Your task to perform on an android device: Add razer thresher to the cart on walmart Image 0: 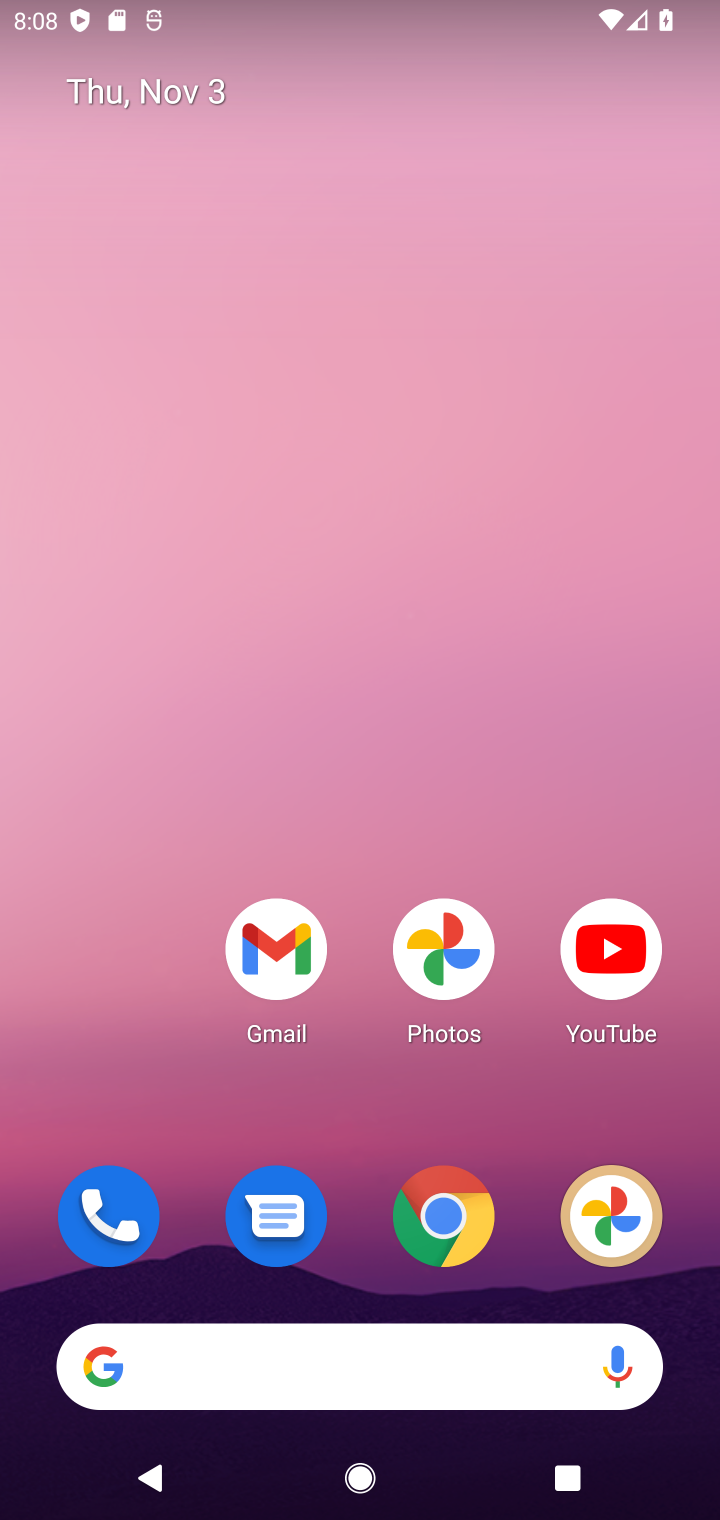
Step 0: click (458, 1223)
Your task to perform on an android device: Add razer thresher to the cart on walmart Image 1: 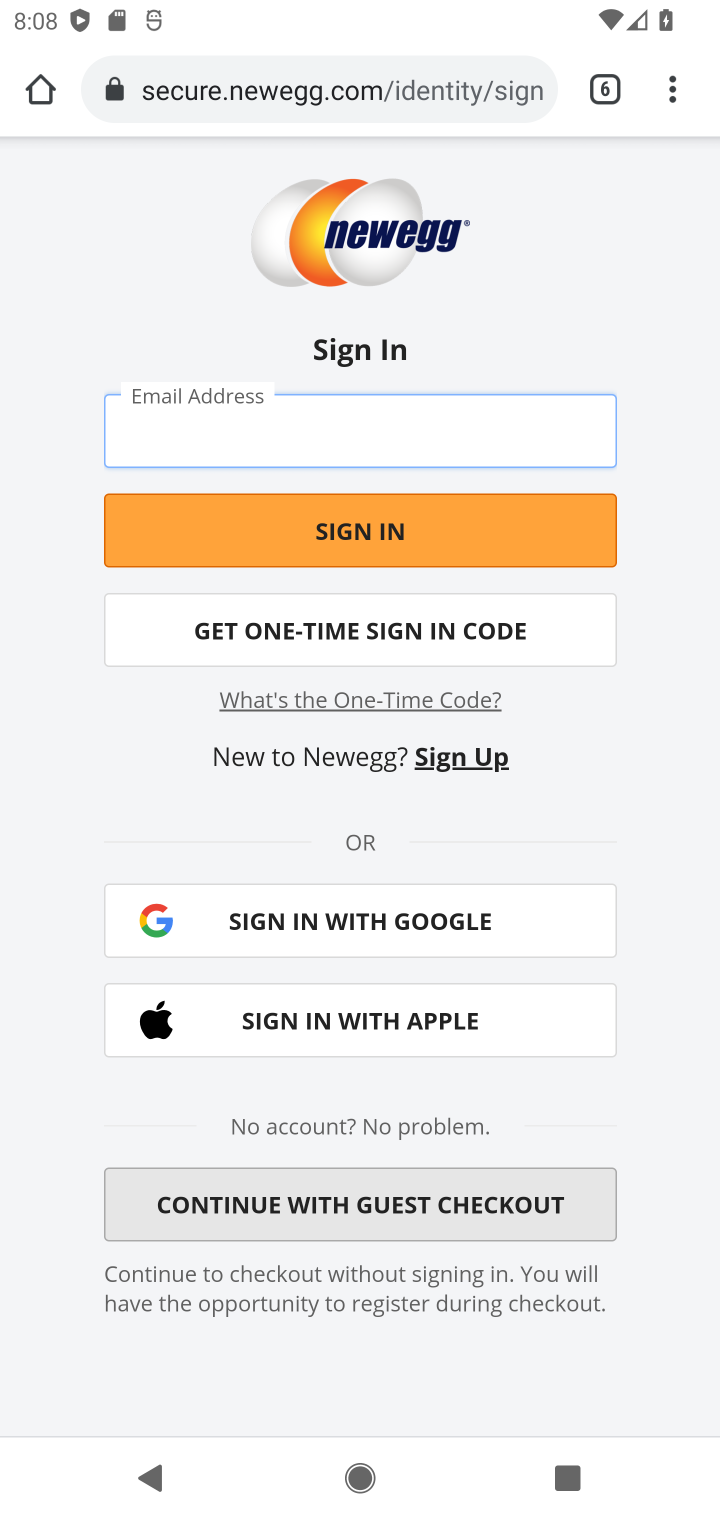
Step 1: click (606, 80)
Your task to perform on an android device: Add razer thresher to the cart on walmart Image 2: 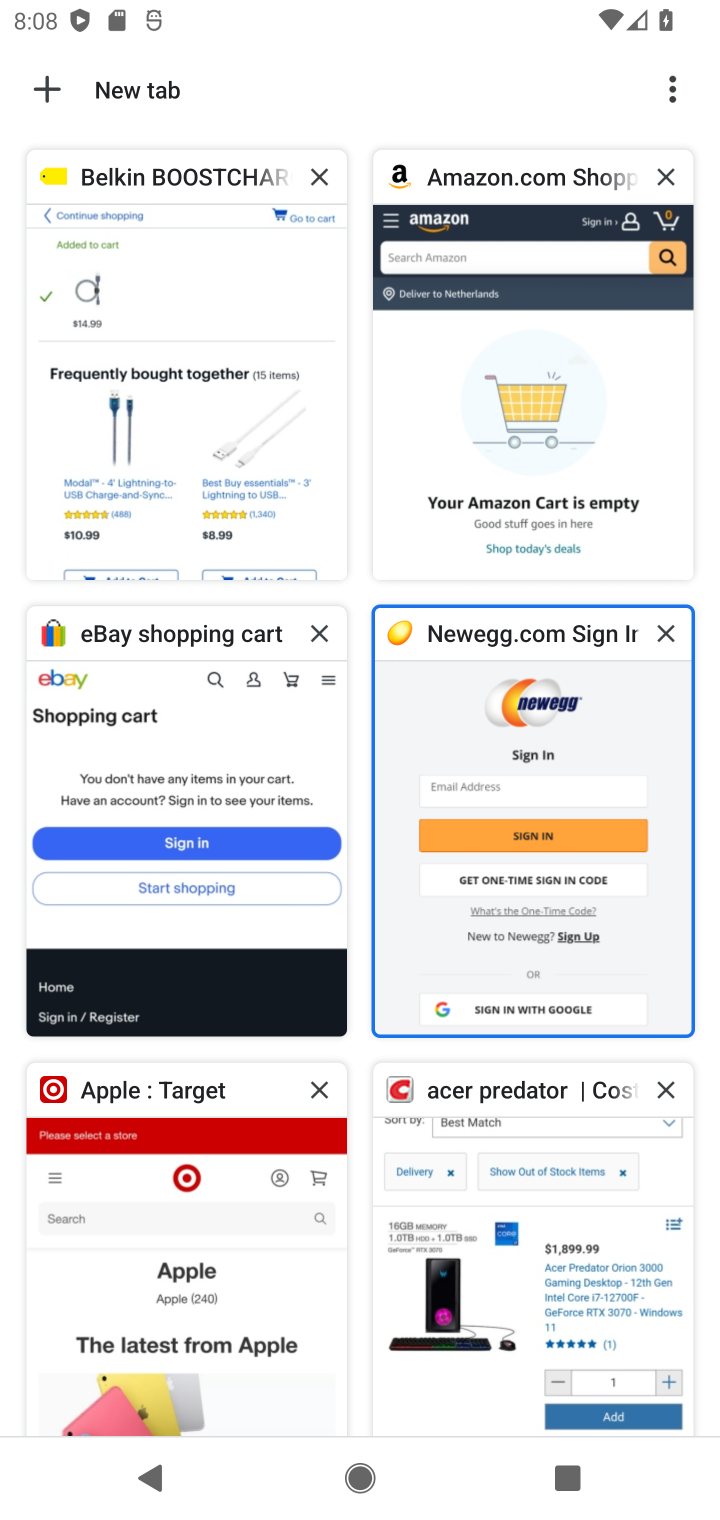
Step 2: click (115, 91)
Your task to perform on an android device: Add razer thresher to the cart on walmart Image 3: 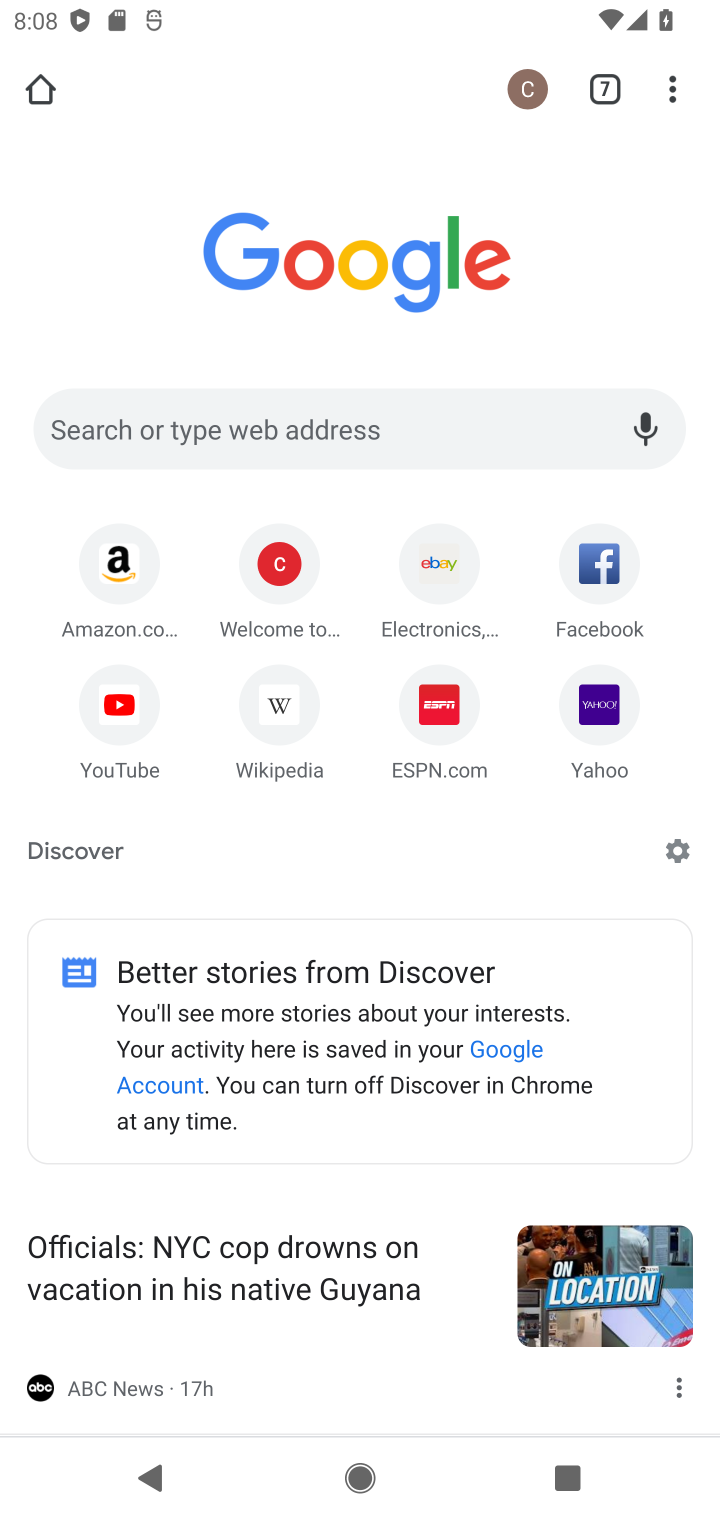
Step 3: click (301, 410)
Your task to perform on an android device: Add razer thresher to the cart on walmart Image 4: 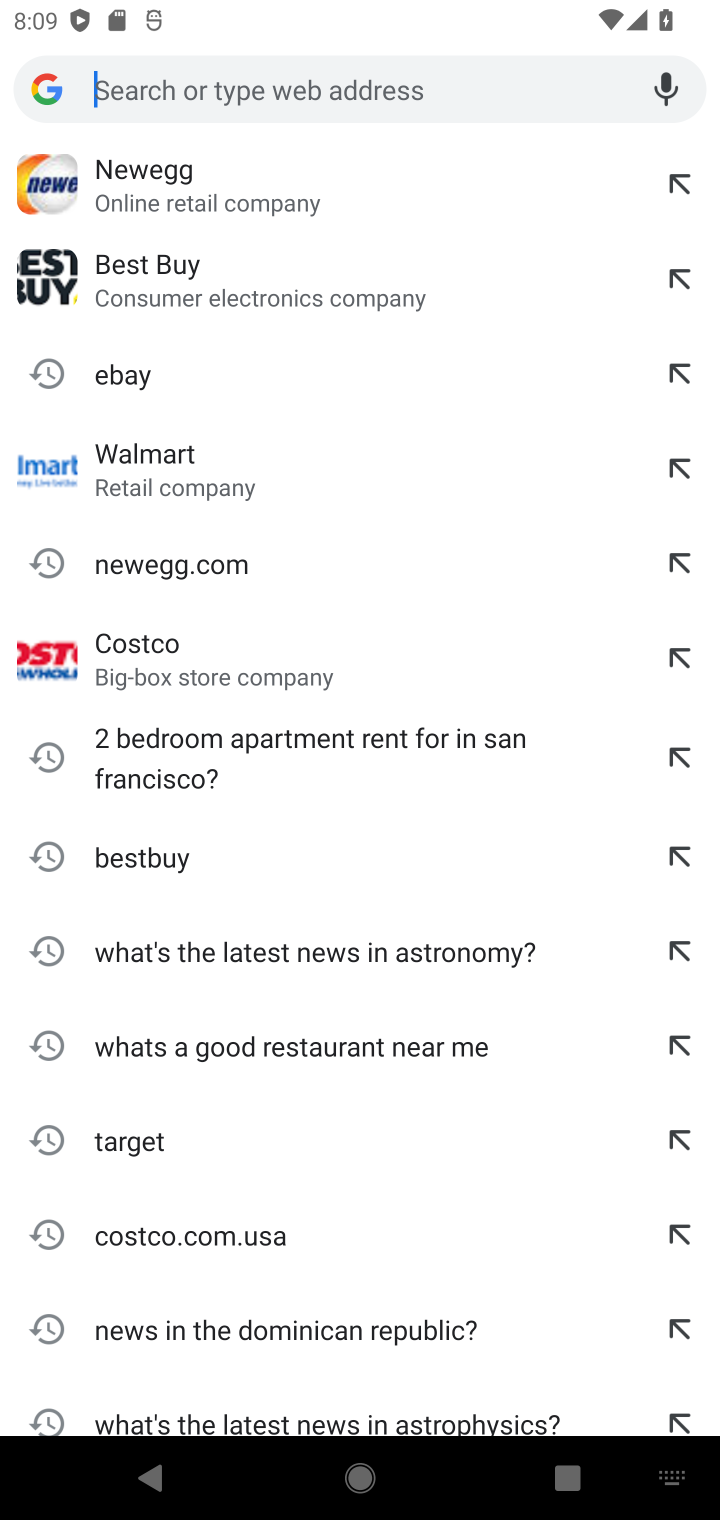
Step 4: click (204, 474)
Your task to perform on an android device: Add razer thresher to the cart on walmart Image 5: 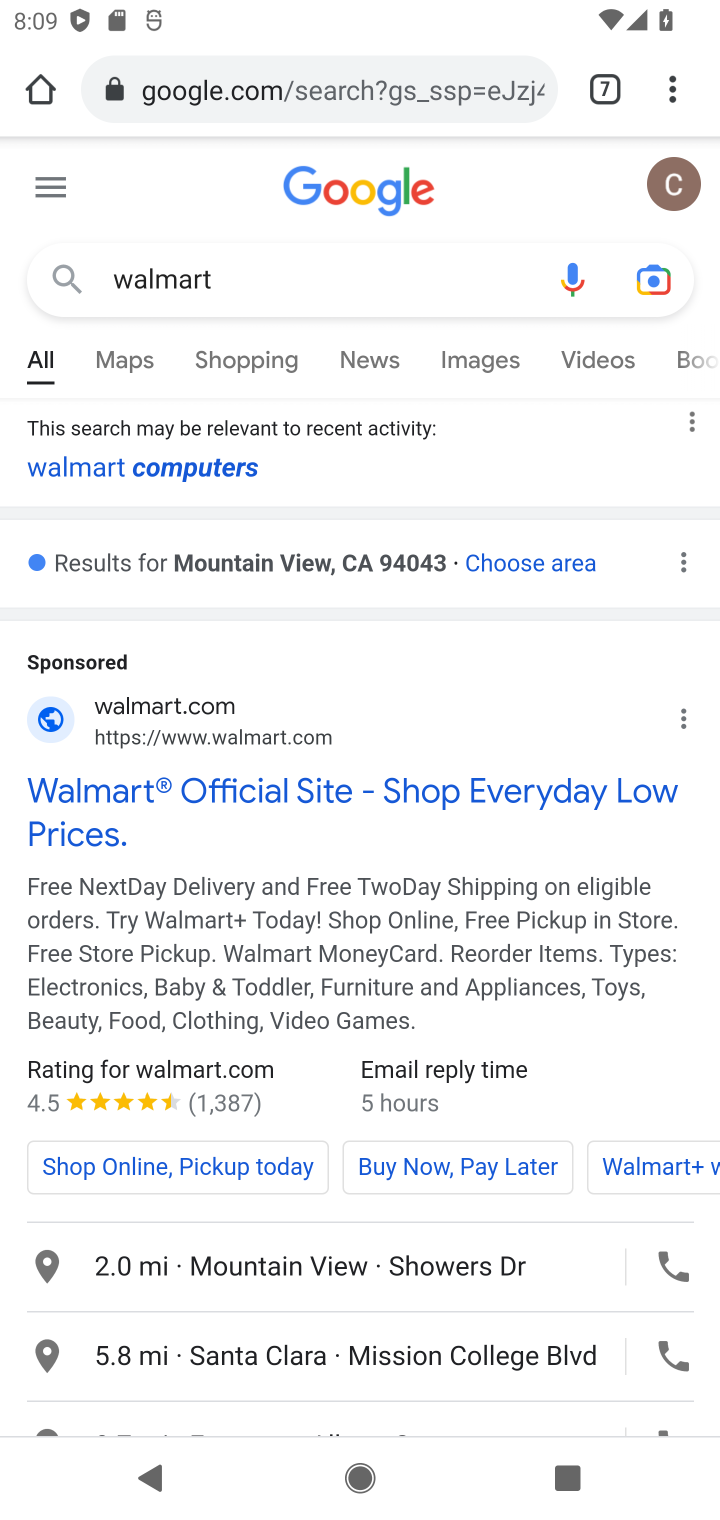
Step 5: click (107, 781)
Your task to perform on an android device: Add razer thresher to the cart on walmart Image 6: 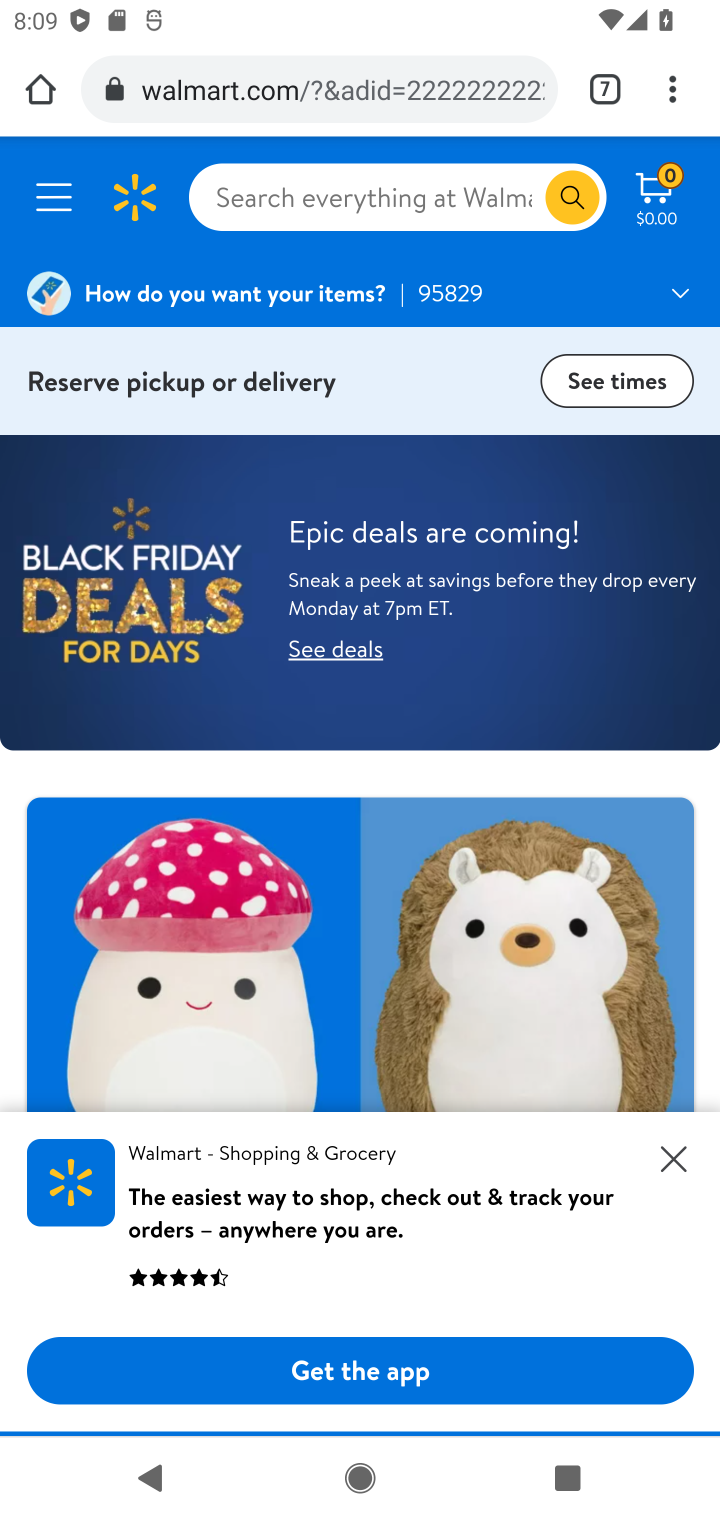
Step 6: click (308, 193)
Your task to perform on an android device: Add razer thresher to the cart on walmart Image 7: 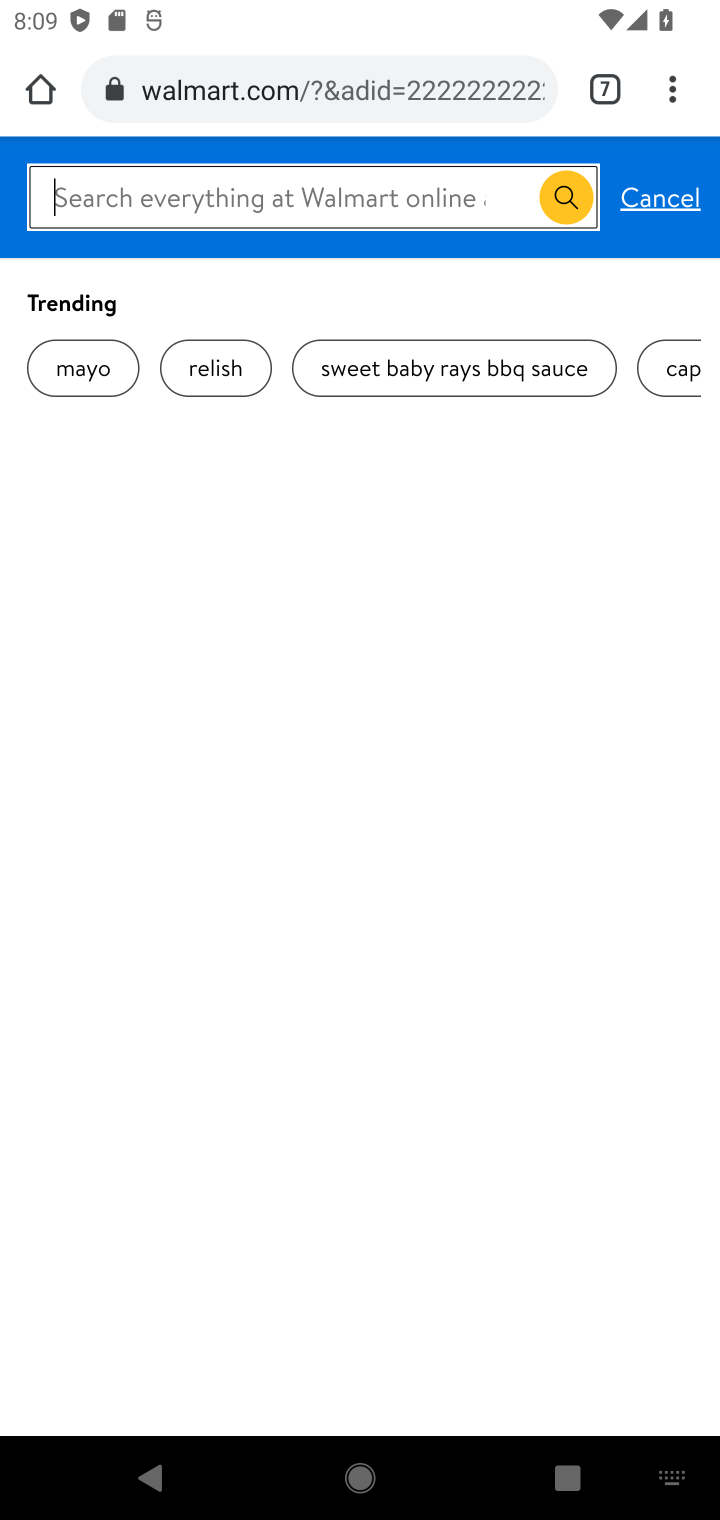
Step 7: type "razer thresher"
Your task to perform on an android device: Add razer thresher to the cart on walmart Image 8: 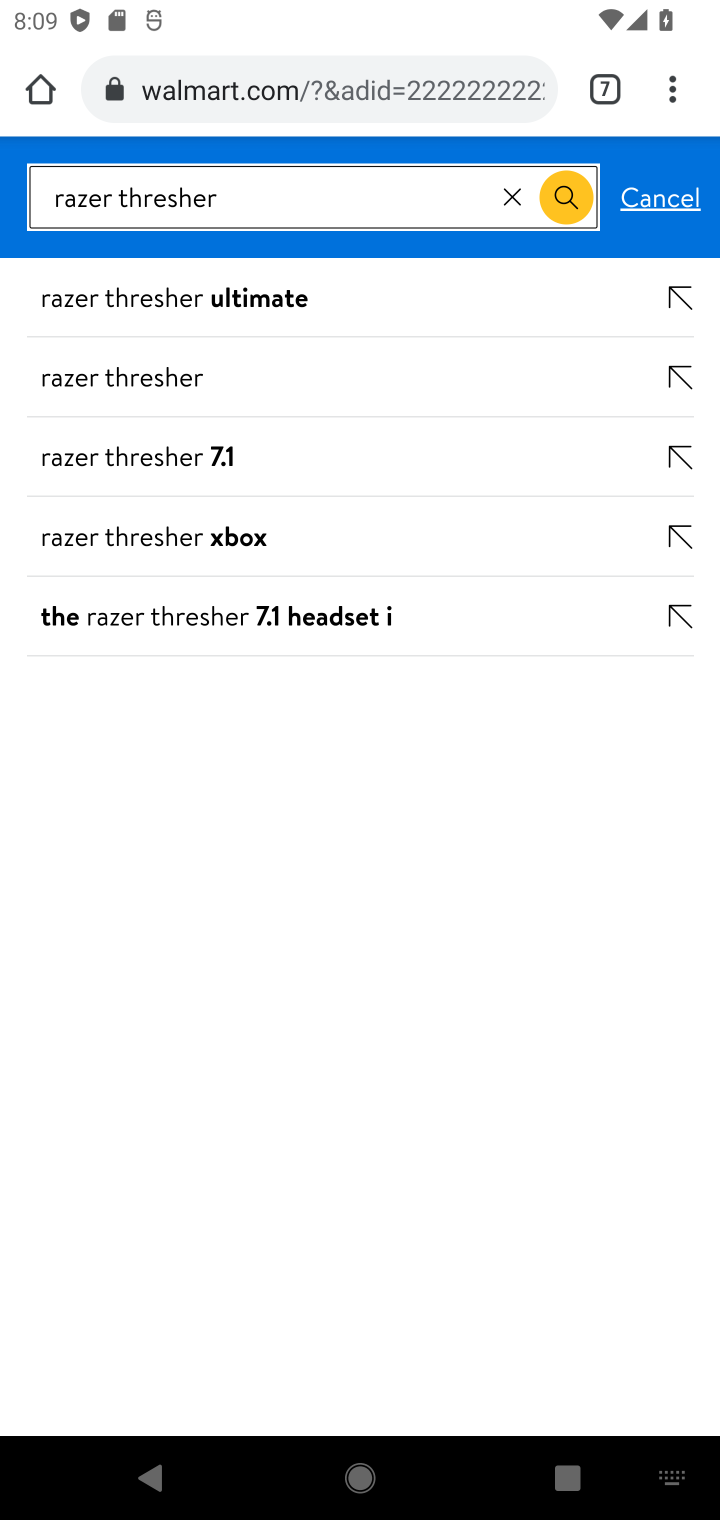
Step 8: press enter
Your task to perform on an android device: Add razer thresher to the cart on walmart Image 9: 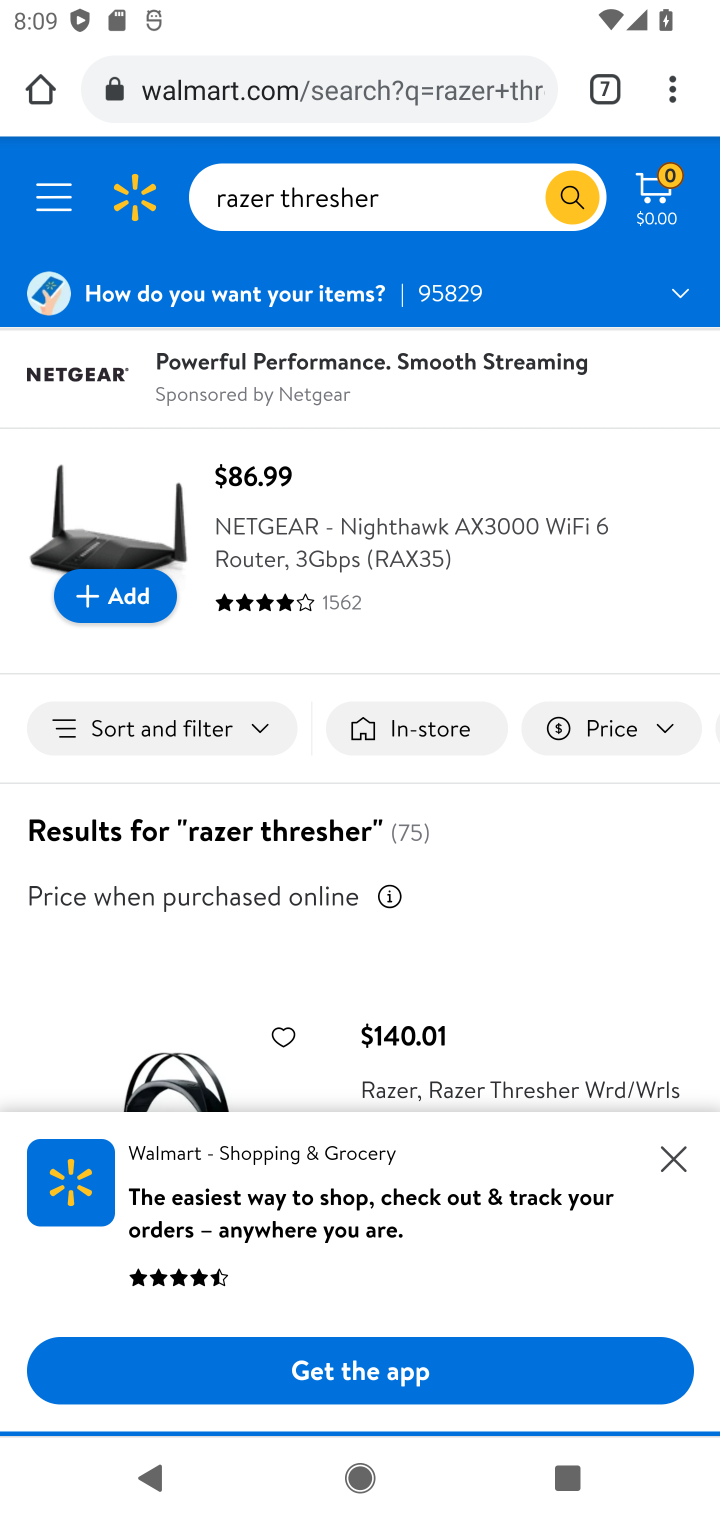
Step 9: drag from (309, 933) to (261, 638)
Your task to perform on an android device: Add razer thresher to the cart on walmart Image 10: 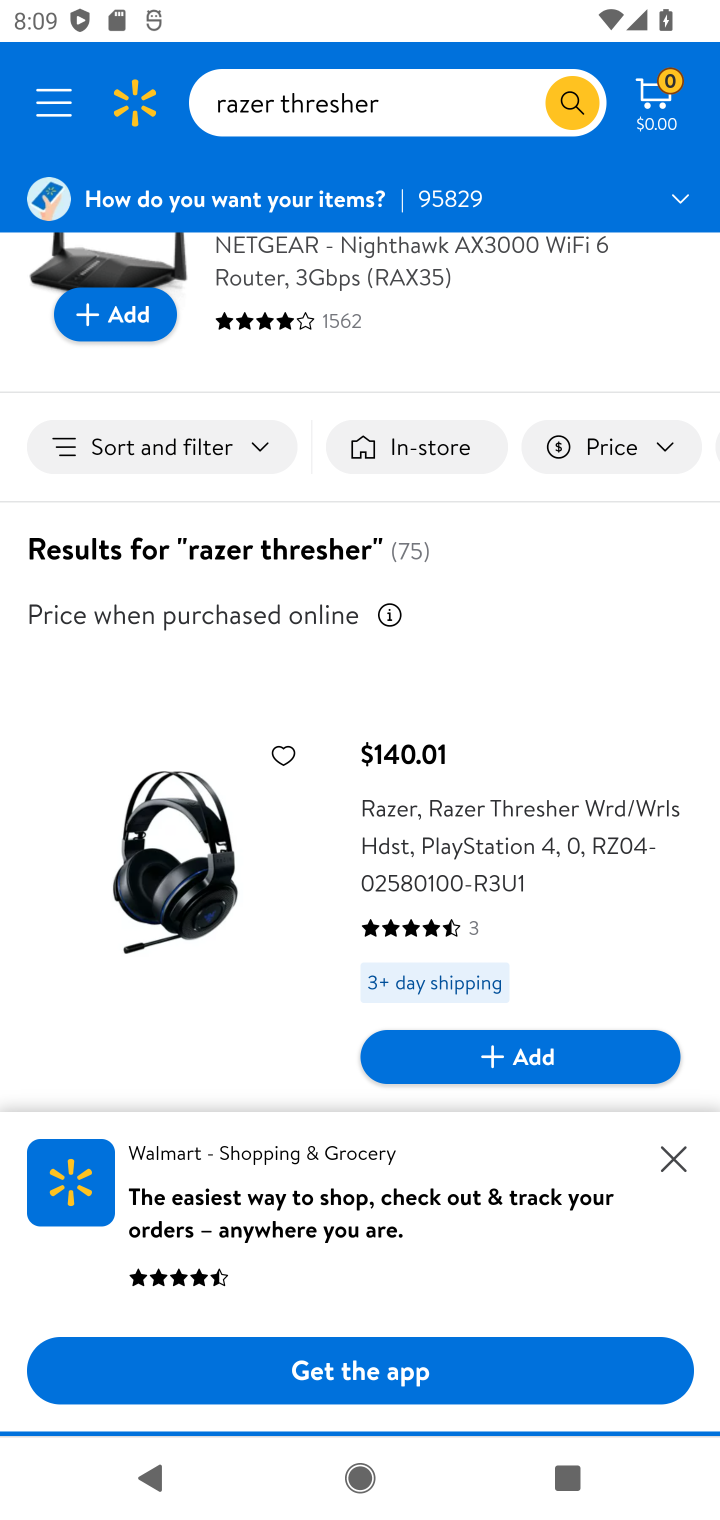
Step 10: click (456, 850)
Your task to perform on an android device: Add razer thresher to the cart on walmart Image 11: 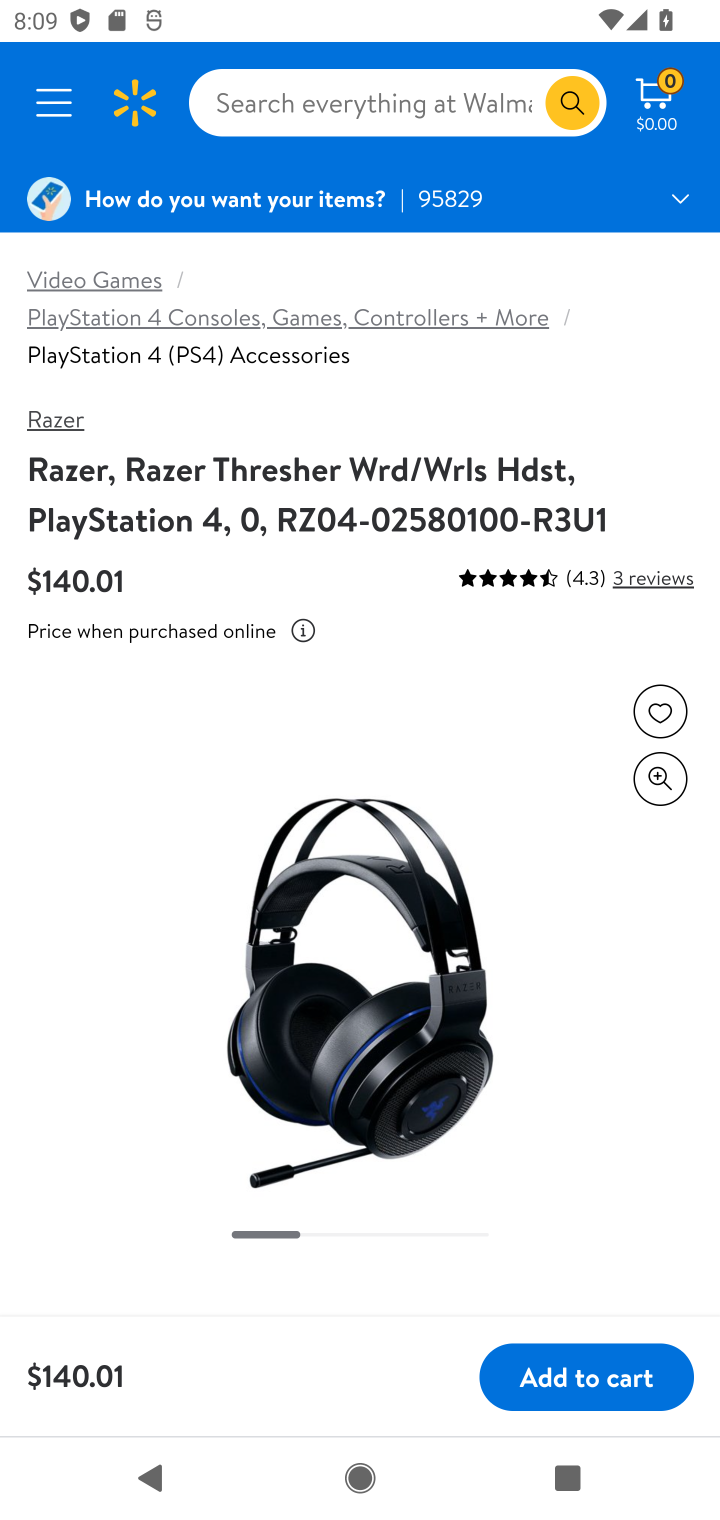
Step 11: click (550, 1361)
Your task to perform on an android device: Add razer thresher to the cart on walmart Image 12: 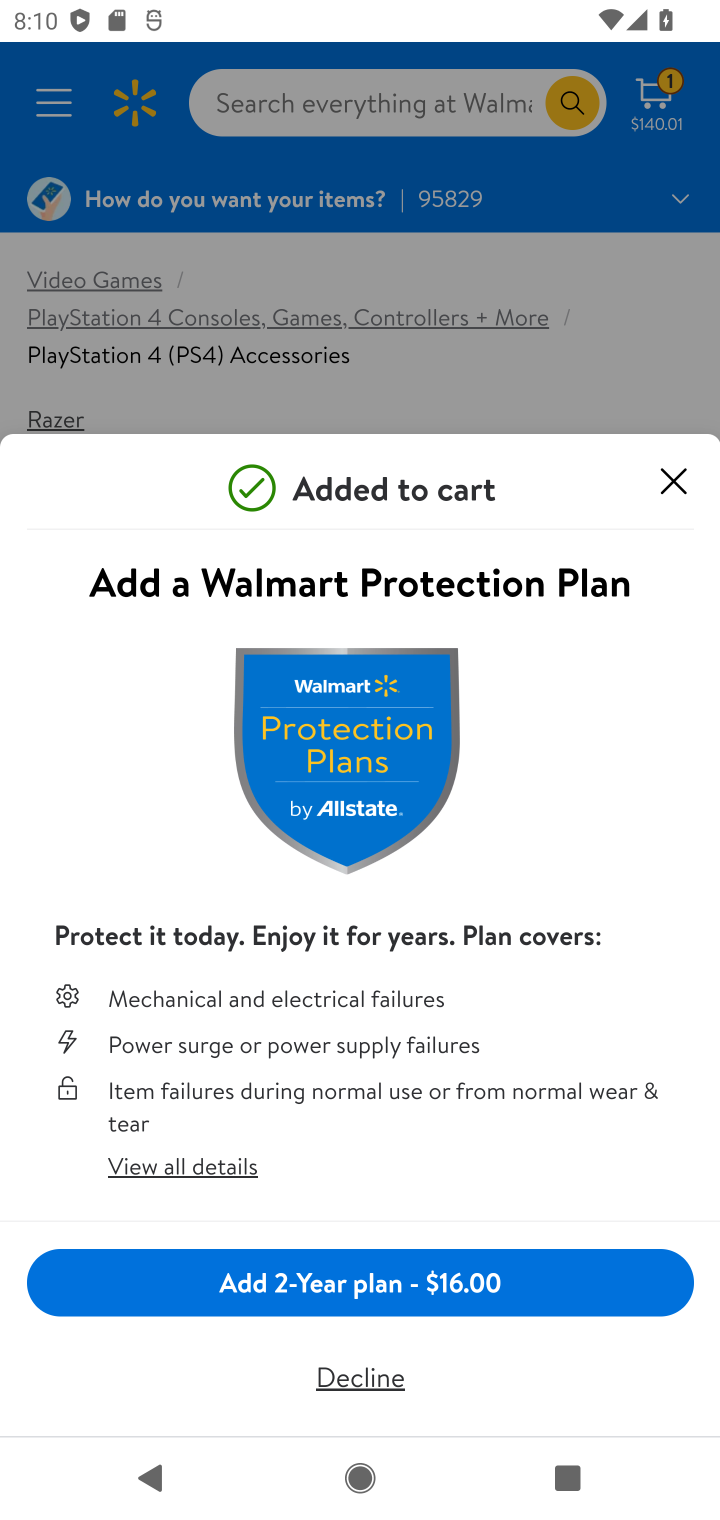
Step 12: task complete